Your task to perform on an android device: check the backup settings in the google photos Image 0: 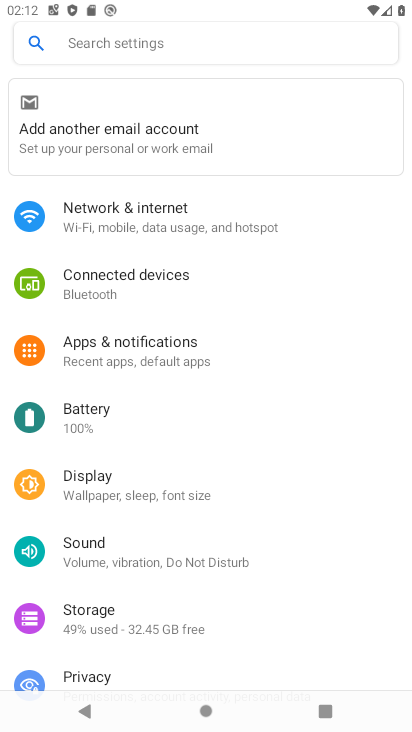
Step 0: press home button
Your task to perform on an android device: check the backup settings in the google photos Image 1: 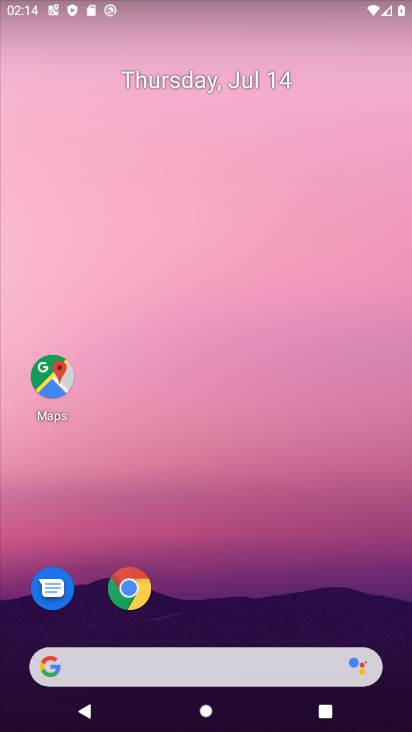
Step 1: drag from (265, 635) to (226, 169)
Your task to perform on an android device: check the backup settings in the google photos Image 2: 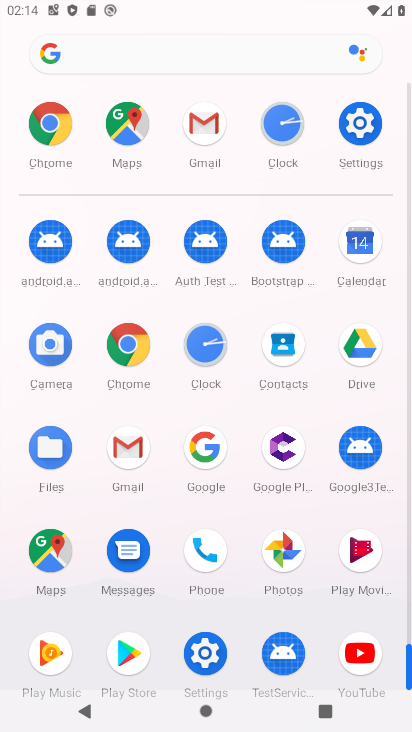
Step 2: click (272, 542)
Your task to perform on an android device: check the backup settings in the google photos Image 3: 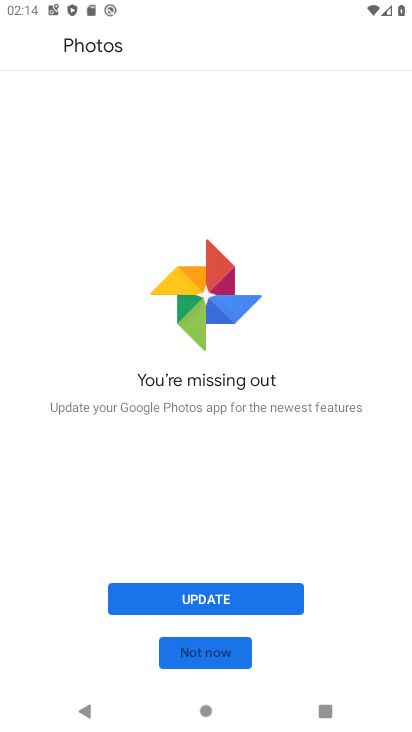
Step 3: click (266, 591)
Your task to perform on an android device: check the backup settings in the google photos Image 4: 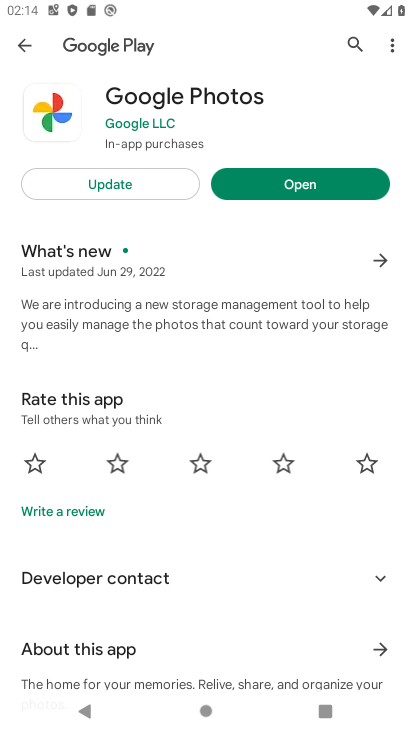
Step 4: click (170, 192)
Your task to perform on an android device: check the backup settings in the google photos Image 5: 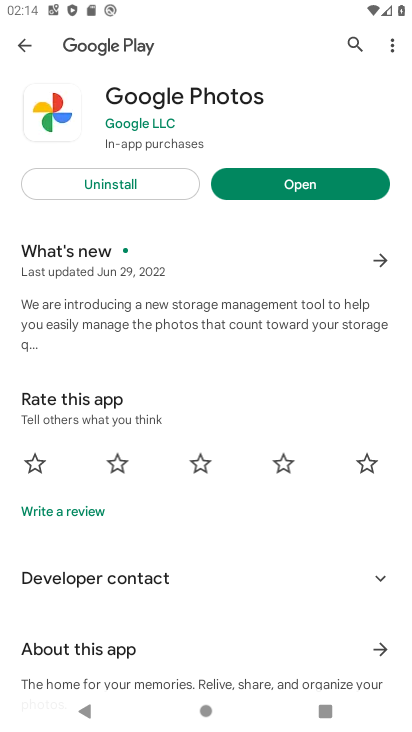
Step 5: click (366, 194)
Your task to perform on an android device: check the backup settings in the google photos Image 6: 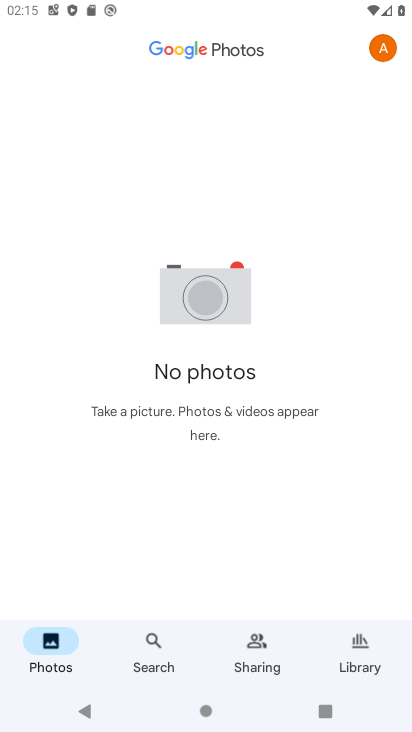
Step 6: click (392, 47)
Your task to perform on an android device: check the backup settings in the google photos Image 7: 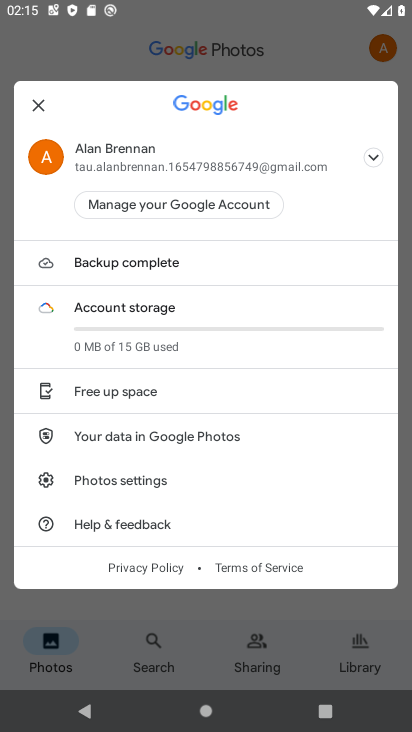
Step 7: click (175, 476)
Your task to perform on an android device: check the backup settings in the google photos Image 8: 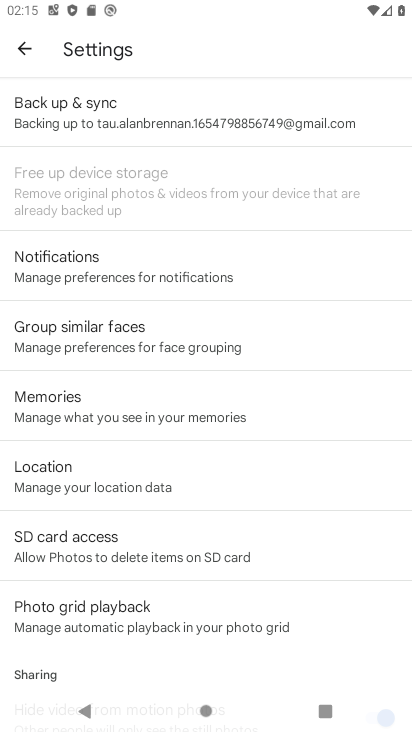
Step 8: click (240, 120)
Your task to perform on an android device: check the backup settings in the google photos Image 9: 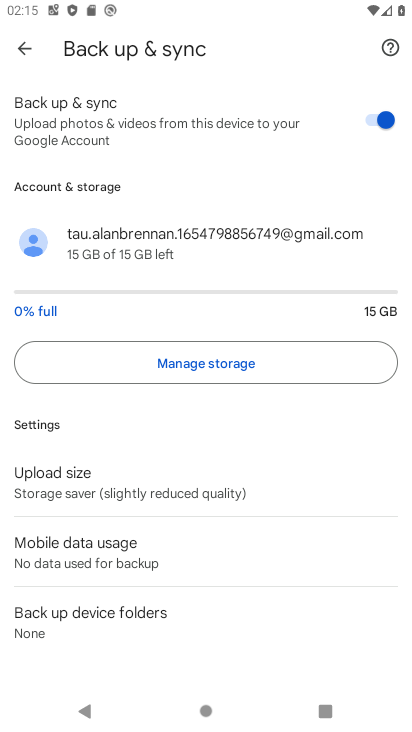
Step 9: task complete